Your task to perform on an android device: Search for pizza restaurants on Maps Image 0: 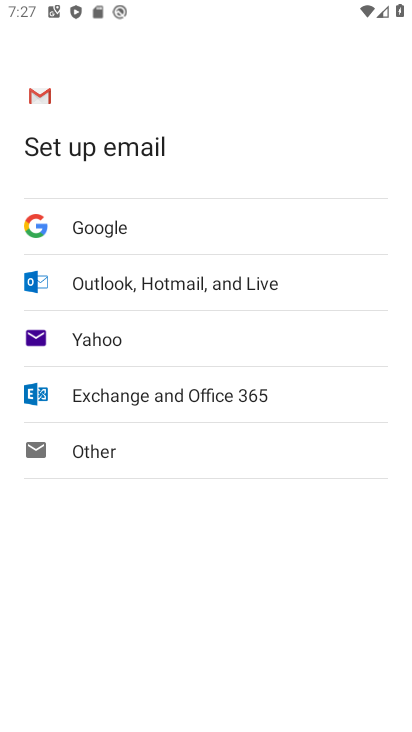
Step 0: press home button
Your task to perform on an android device: Search for pizza restaurants on Maps Image 1: 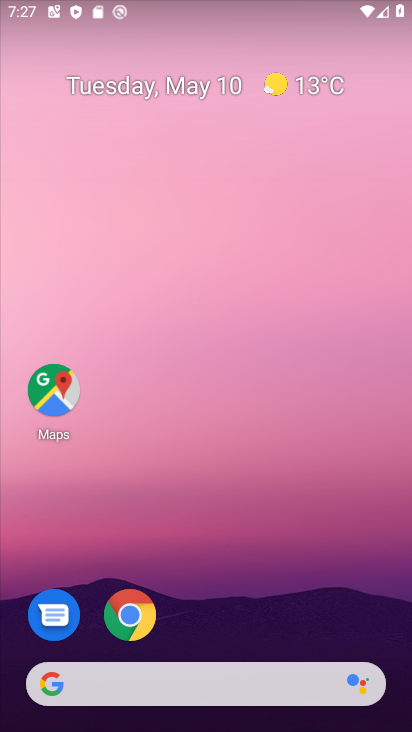
Step 1: drag from (256, 611) to (244, 70)
Your task to perform on an android device: Search for pizza restaurants on Maps Image 2: 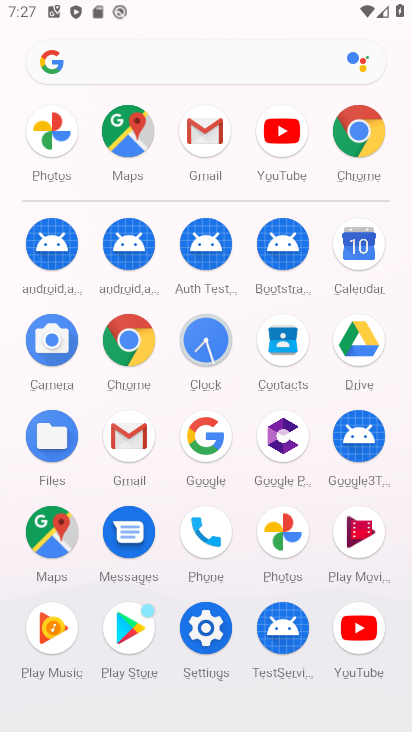
Step 2: click (122, 138)
Your task to perform on an android device: Search for pizza restaurants on Maps Image 3: 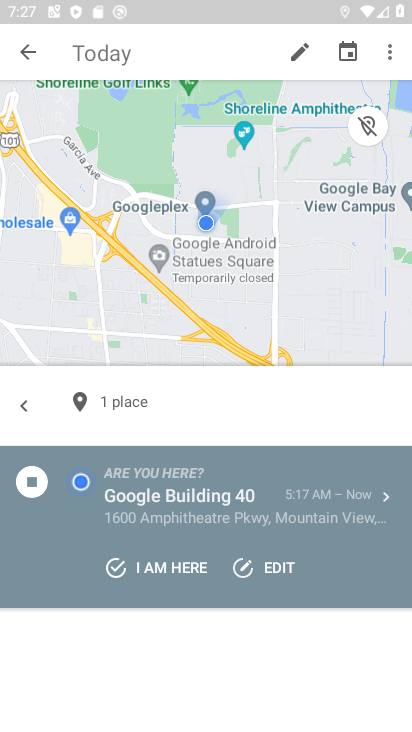
Step 3: click (28, 54)
Your task to perform on an android device: Search for pizza restaurants on Maps Image 4: 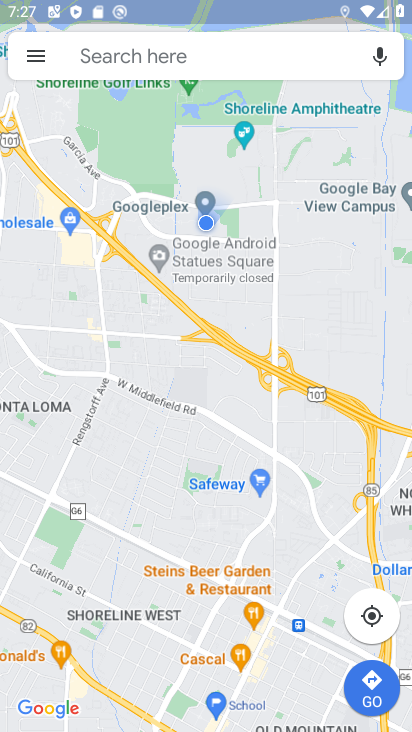
Step 4: click (133, 66)
Your task to perform on an android device: Search for pizza restaurants on Maps Image 5: 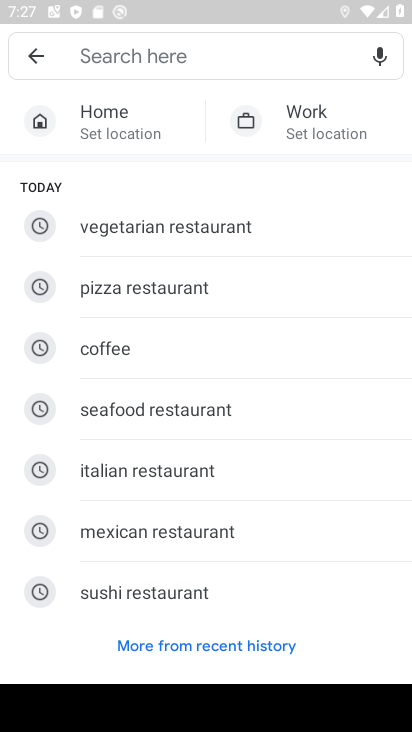
Step 5: click (170, 296)
Your task to perform on an android device: Search for pizza restaurants on Maps Image 6: 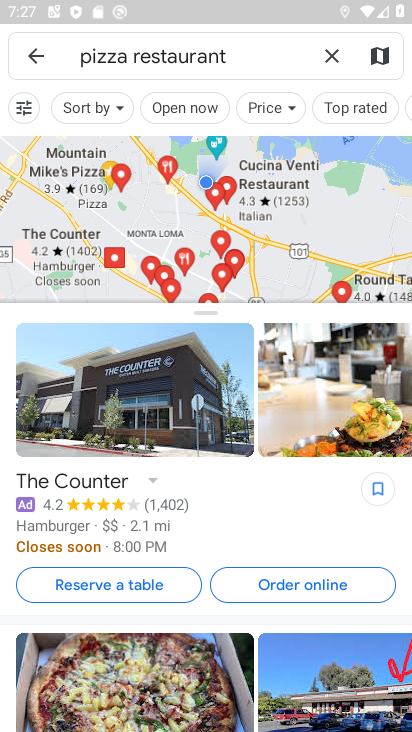
Step 6: task complete